Your task to perform on an android device: Open sound settings Image 0: 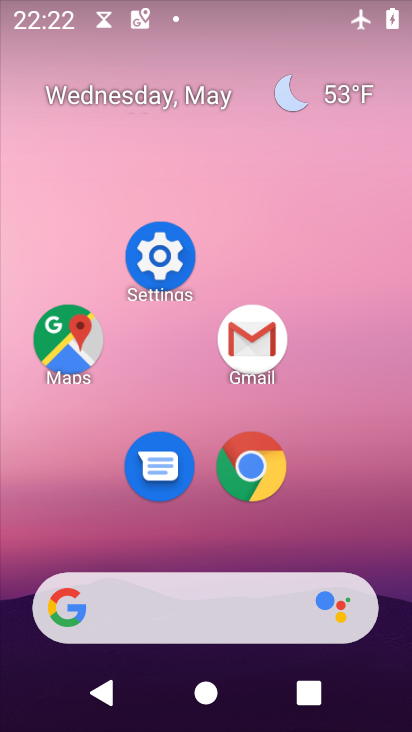
Step 0: drag from (197, 537) to (174, 30)
Your task to perform on an android device: Open sound settings Image 1: 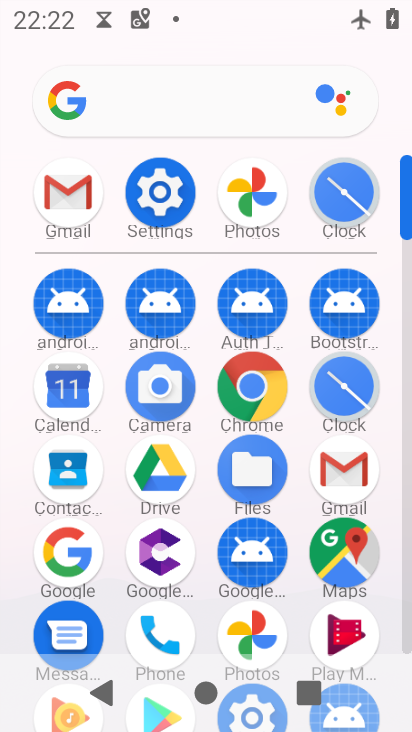
Step 1: click (159, 191)
Your task to perform on an android device: Open sound settings Image 2: 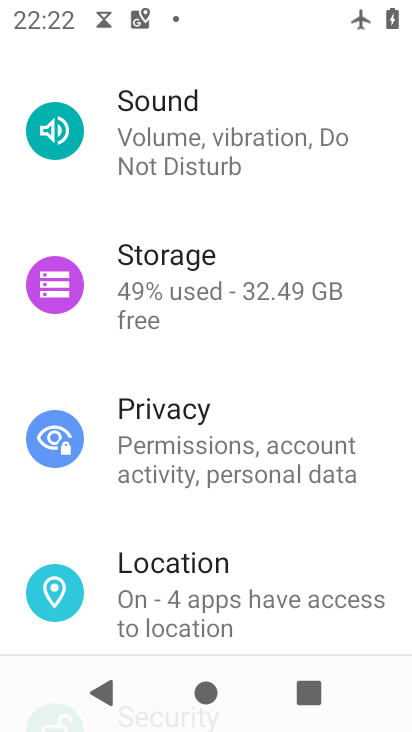
Step 2: drag from (232, 540) to (252, 195)
Your task to perform on an android device: Open sound settings Image 3: 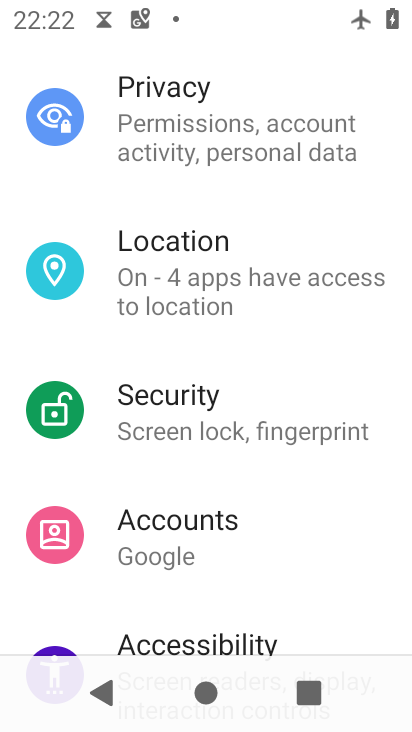
Step 3: drag from (254, 124) to (273, 670)
Your task to perform on an android device: Open sound settings Image 4: 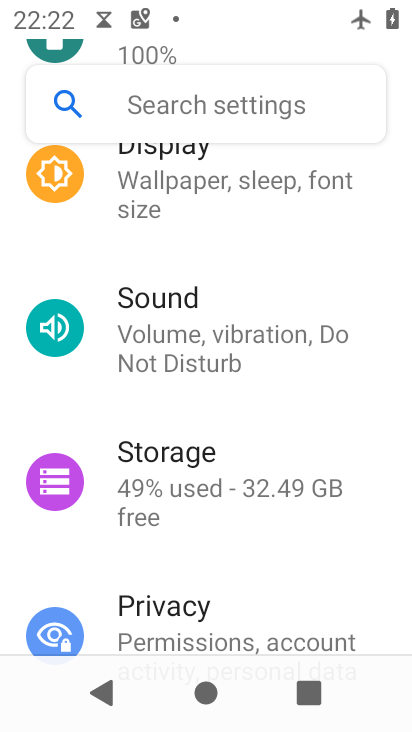
Step 4: click (203, 318)
Your task to perform on an android device: Open sound settings Image 5: 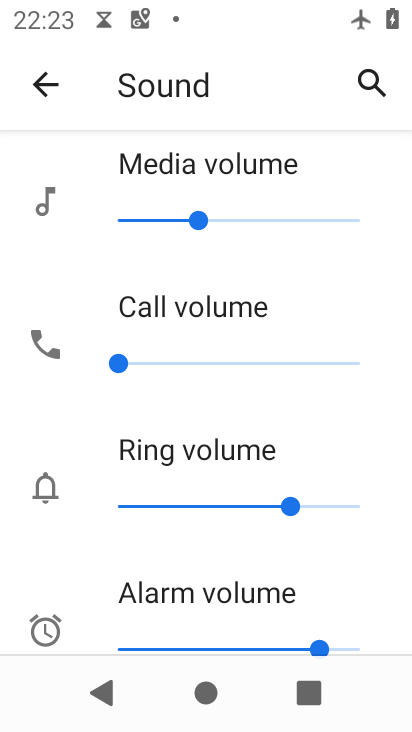
Step 5: task complete